Your task to perform on an android device: Open Google Maps Image 0: 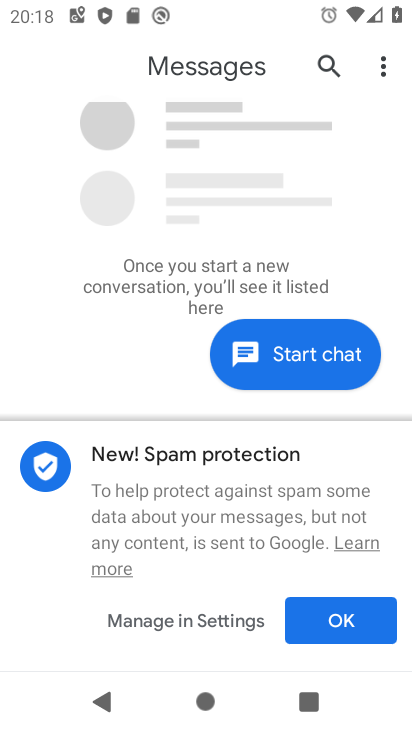
Step 0: press home button
Your task to perform on an android device: Open Google Maps Image 1: 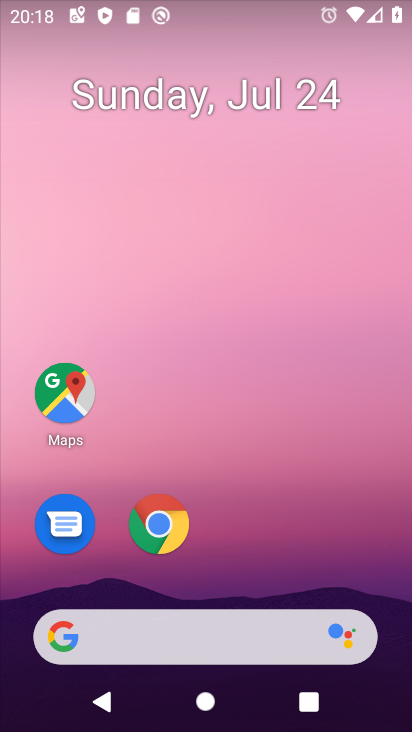
Step 1: click (64, 395)
Your task to perform on an android device: Open Google Maps Image 2: 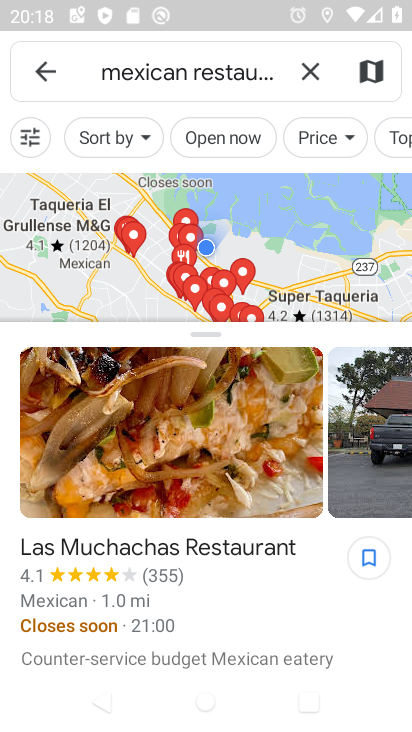
Step 2: click (309, 71)
Your task to perform on an android device: Open Google Maps Image 3: 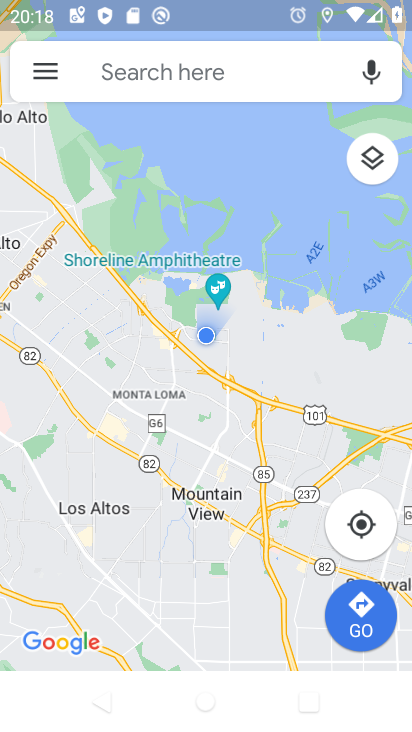
Step 3: task complete